Your task to perform on an android device: Clear the cart on ebay.com. Search for "macbook" on ebay.com, select the first entry, add it to the cart, then select checkout. Image 0: 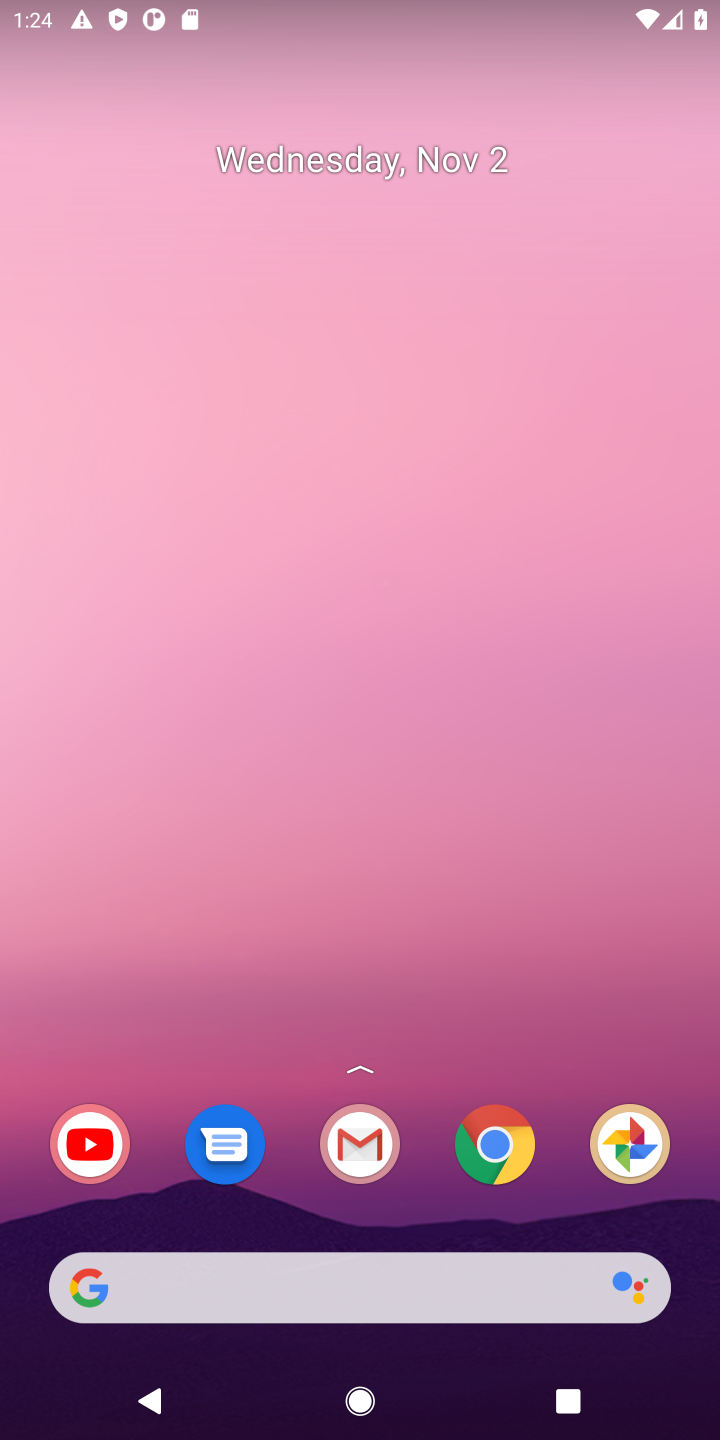
Step 0: press home button
Your task to perform on an android device: Clear the cart on ebay.com. Search for "macbook" on ebay.com, select the first entry, add it to the cart, then select checkout. Image 1: 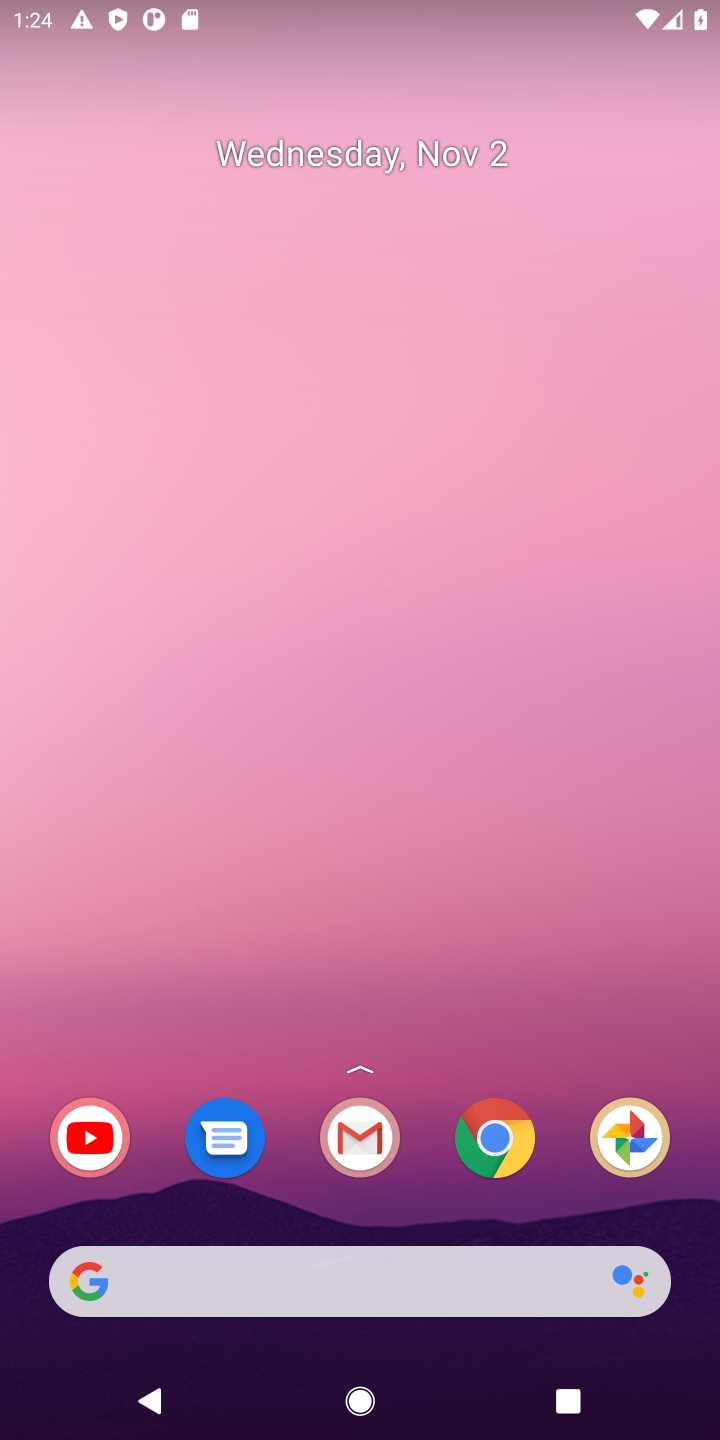
Step 1: press home button
Your task to perform on an android device: Clear the cart on ebay.com. Search for "macbook" on ebay.com, select the first entry, add it to the cart, then select checkout. Image 2: 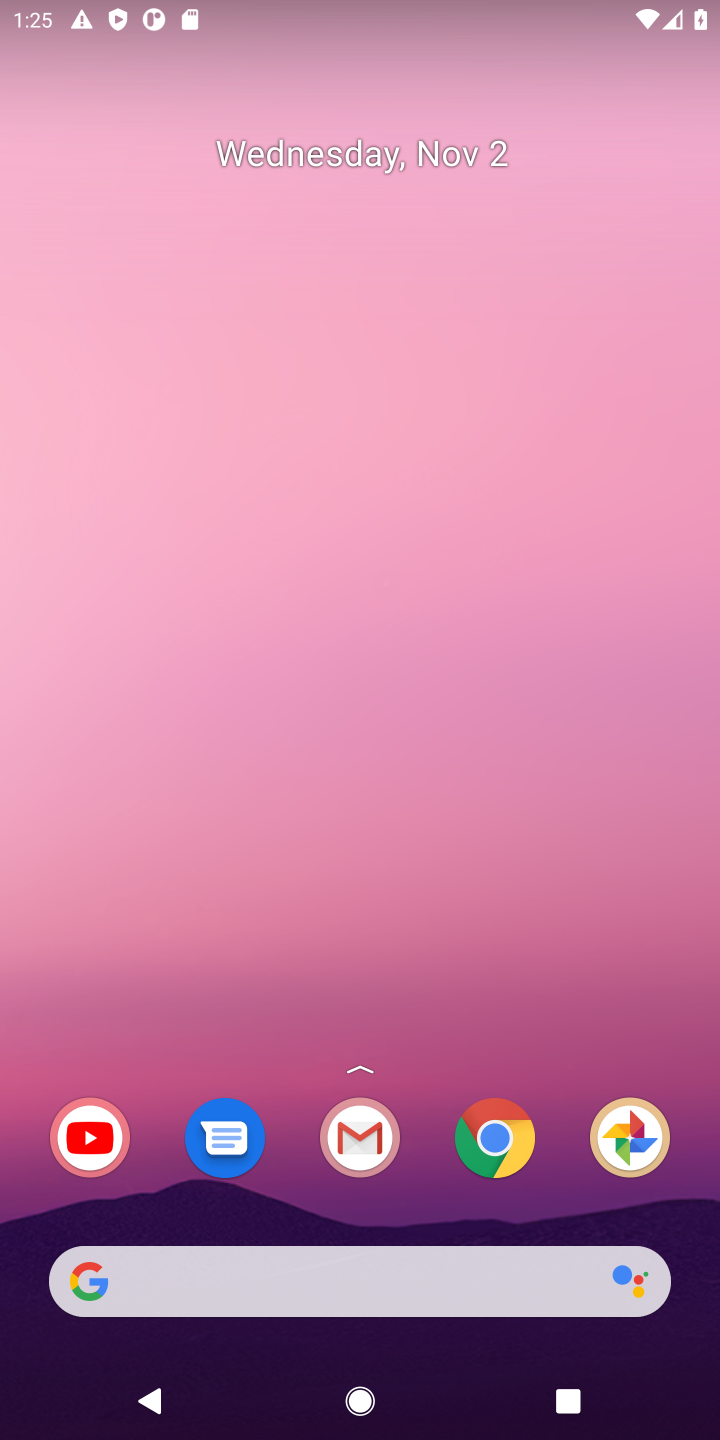
Step 2: click (136, 1272)
Your task to perform on an android device: Clear the cart on ebay.com. Search for "macbook" on ebay.com, select the first entry, add it to the cart, then select checkout. Image 3: 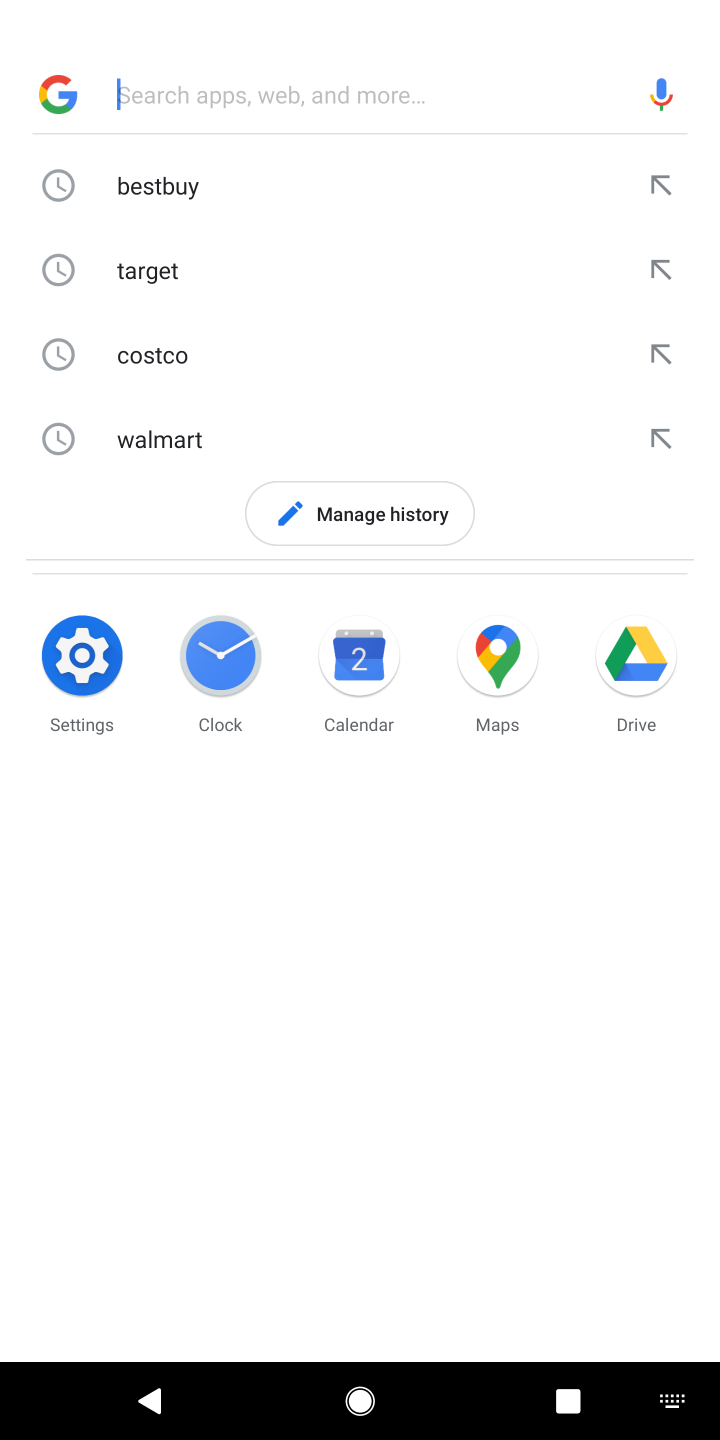
Step 3: press enter
Your task to perform on an android device: Clear the cart on ebay.com. Search for "macbook" on ebay.com, select the first entry, add it to the cart, then select checkout. Image 4: 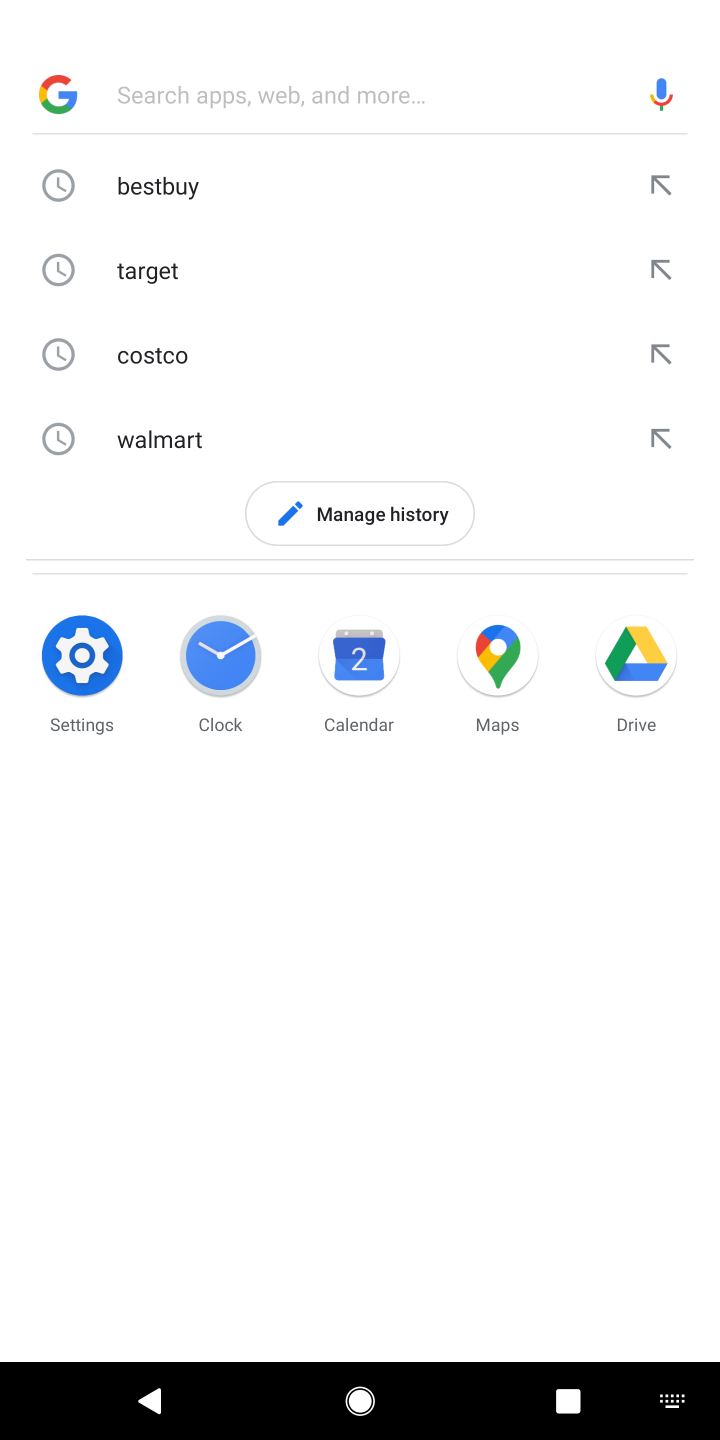
Step 4: type "ebay.com"
Your task to perform on an android device: Clear the cart on ebay.com. Search for "macbook" on ebay.com, select the first entry, add it to the cart, then select checkout. Image 5: 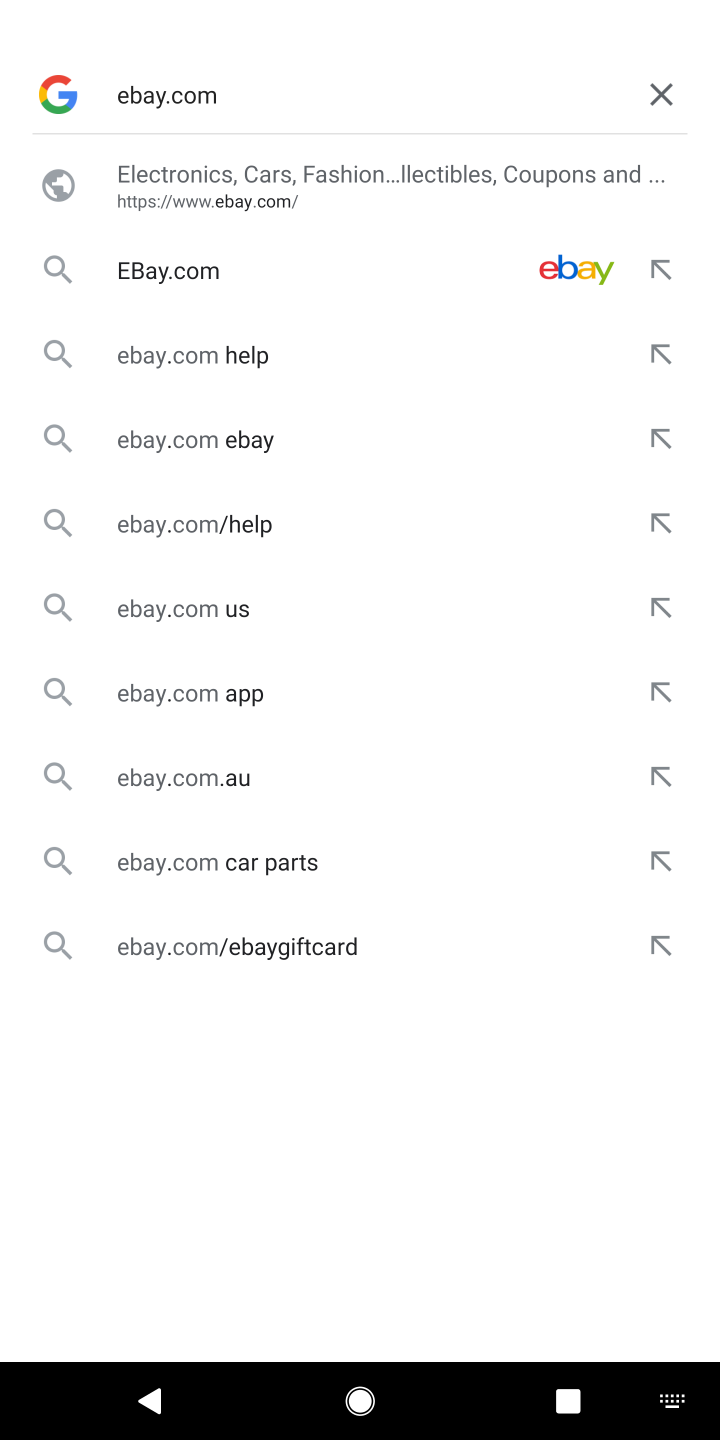
Step 5: press enter
Your task to perform on an android device: Clear the cart on ebay.com. Search for "macbook" on ebay.com, select the first entry, add it to the cart, then select checkout. Image 6: 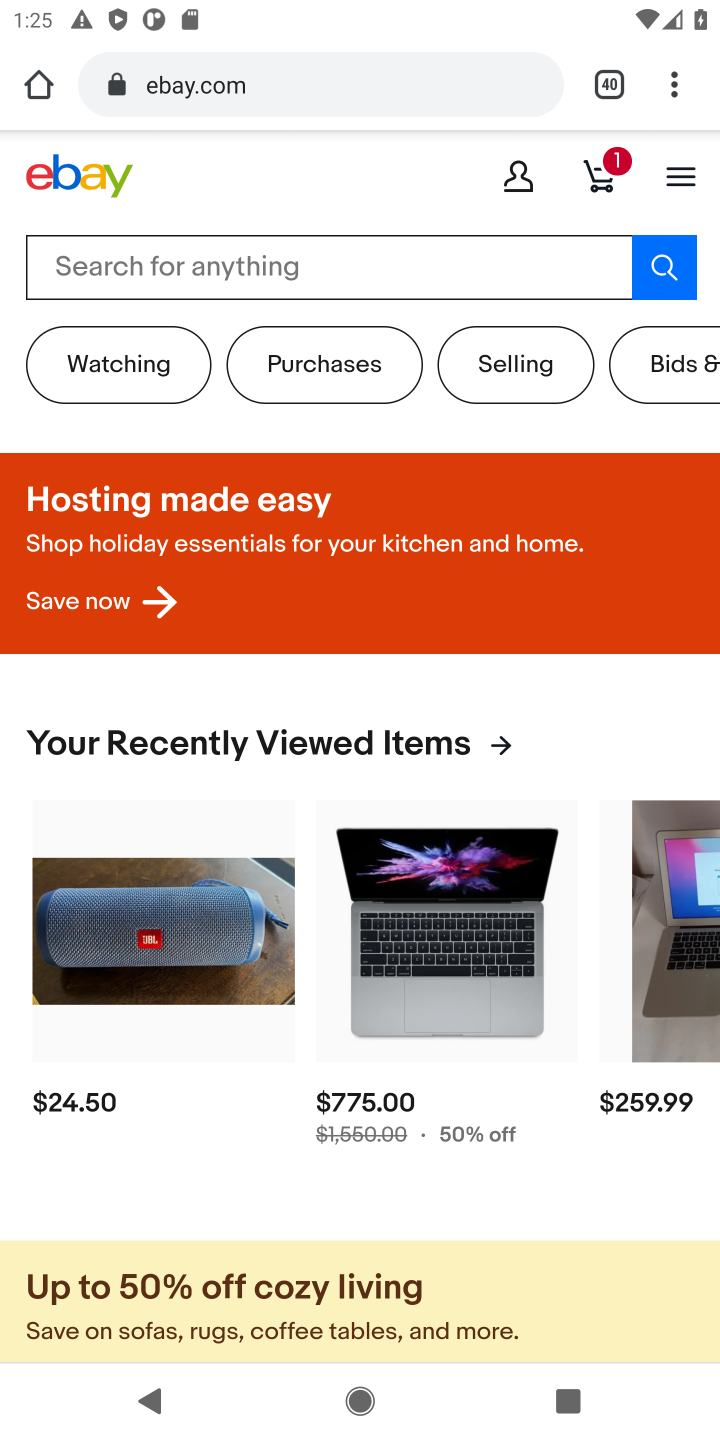
Step 6: click (607, 165)
Your task to perform on an android device: Clear the cart on ebay.com. Search for "macbook" on ebay.com, select the first entry, add it to the cart, then select checkout. Image 7: 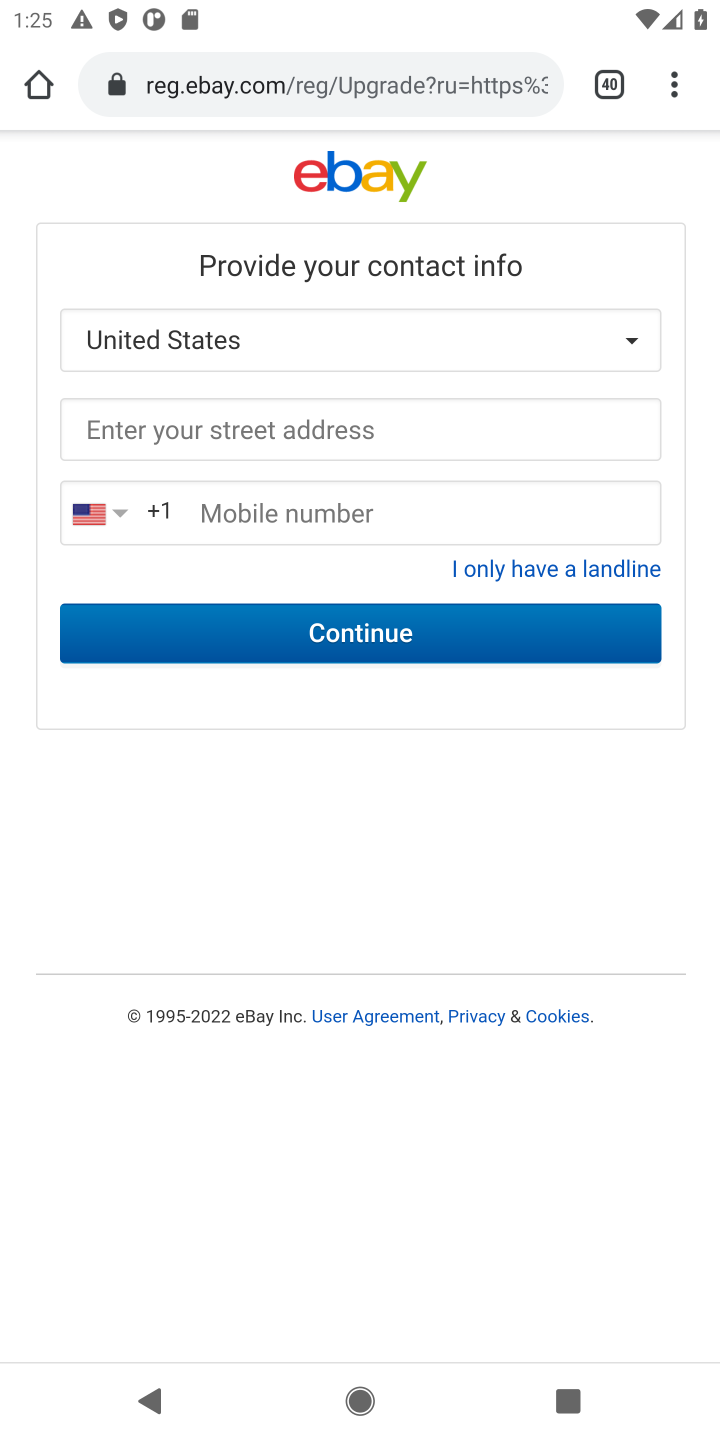
Step 7: press back button
Your task to perform on an android device: Clear the cart on ebay.com. Search for "macbook" on ebay.com, select the first entry, add it to the cart, then select checkout. Image 8: 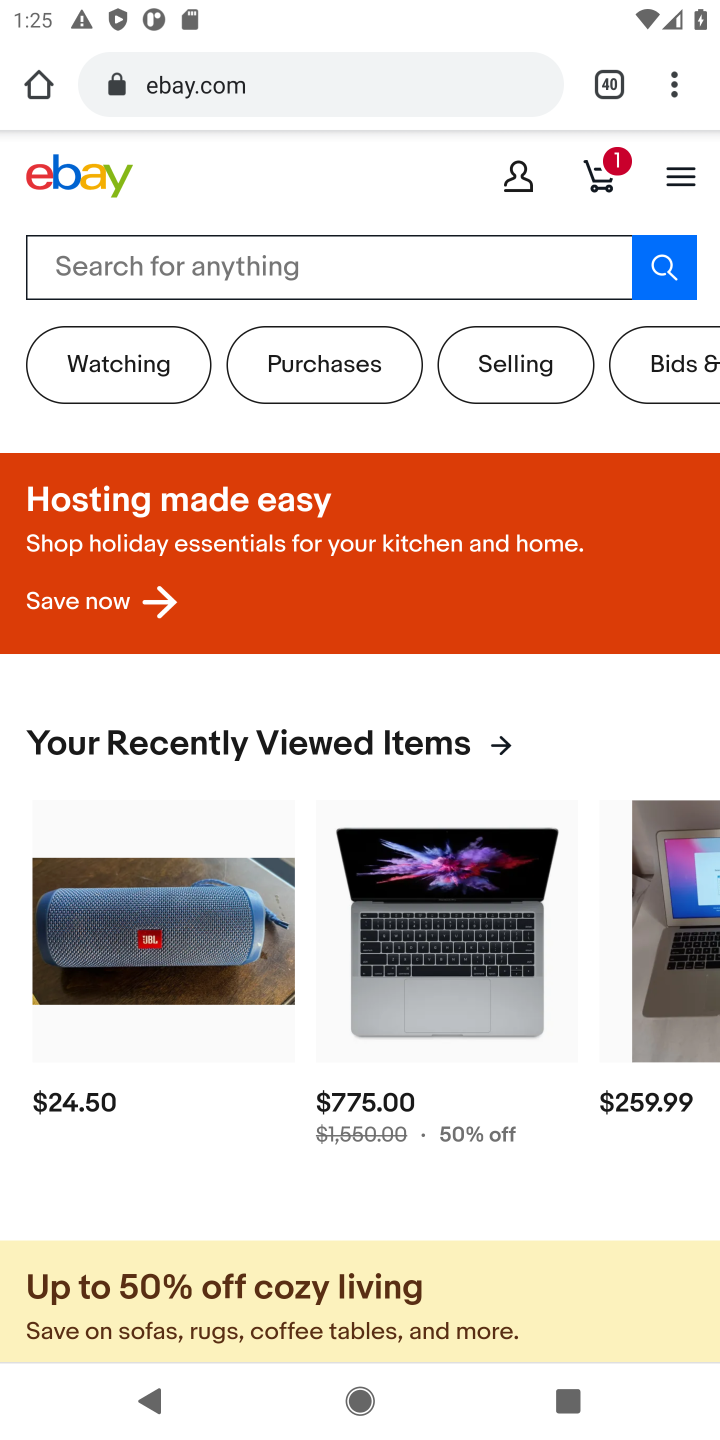
Step 8: click (148, 269)
Your task to perform on an android device: Clear the cart on ebay.com. Search for "macbook" on ebay.com, select the first entry, add it to the cart, then select checkout. Image 9: 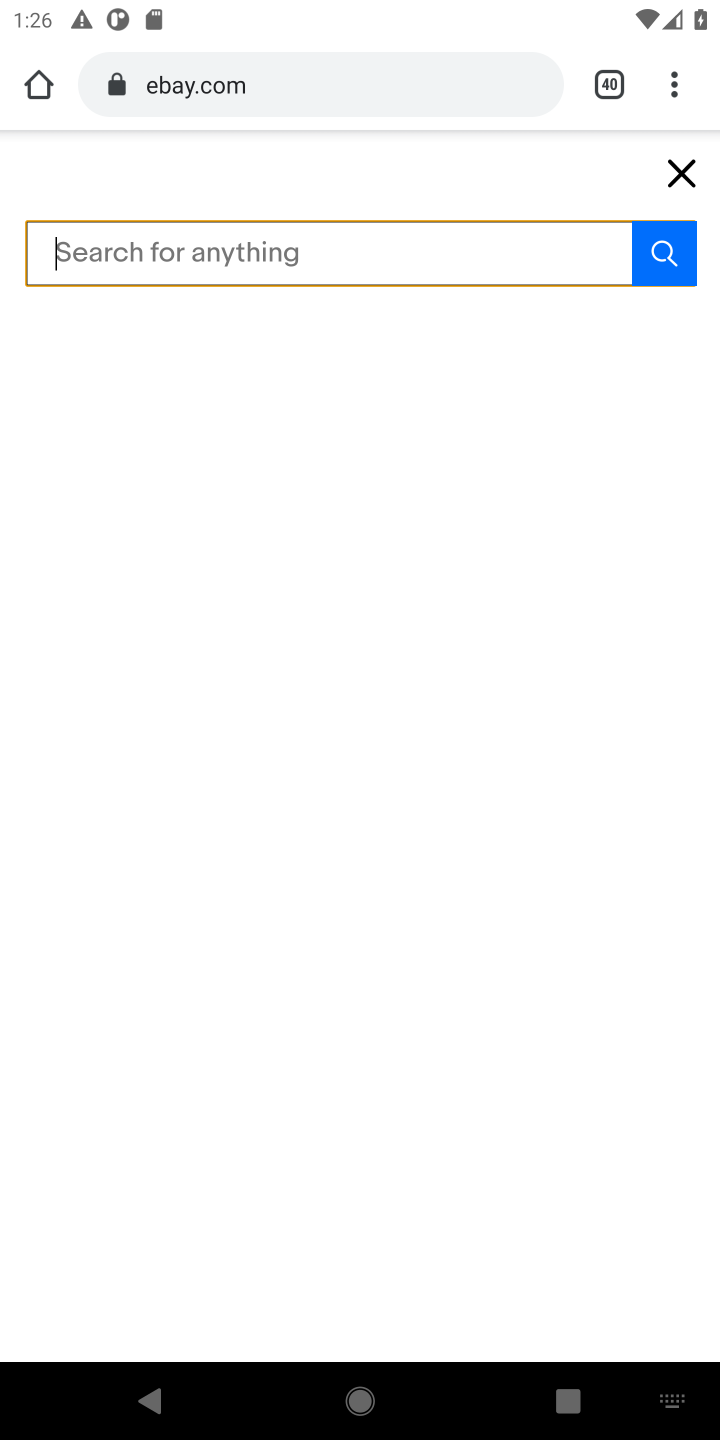
Step 9: press enter
Your task to perform on an android device: Clear the cart on ebay.com. Search for "macbook" on ebay.com, select the first entry, add it to the cart, then select checkout. Image 10: 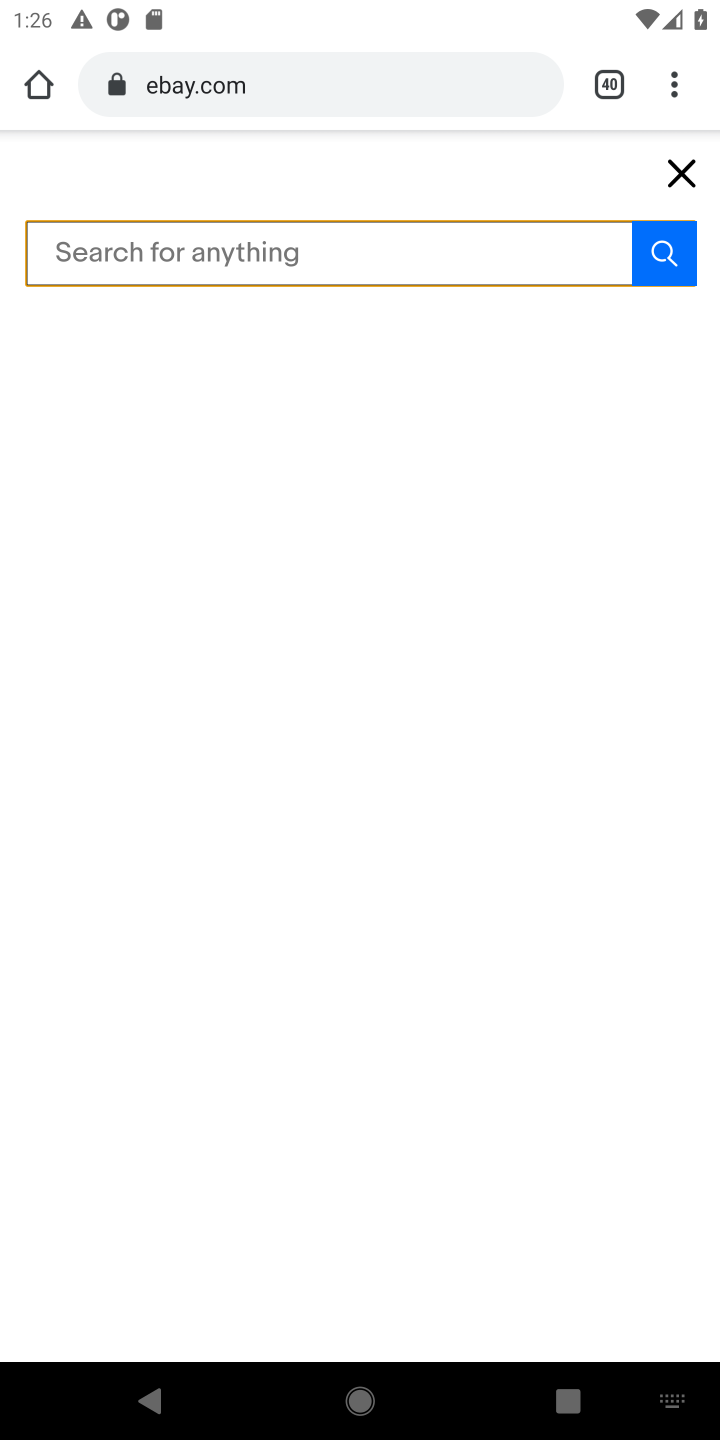
Step 10: type "macbook"
Your task to perform on an android device: Clear the cart on ebay.com. Search for "macbook" on ebay.com, select the first entry, add it to the cart, then select checkout. Image 11: 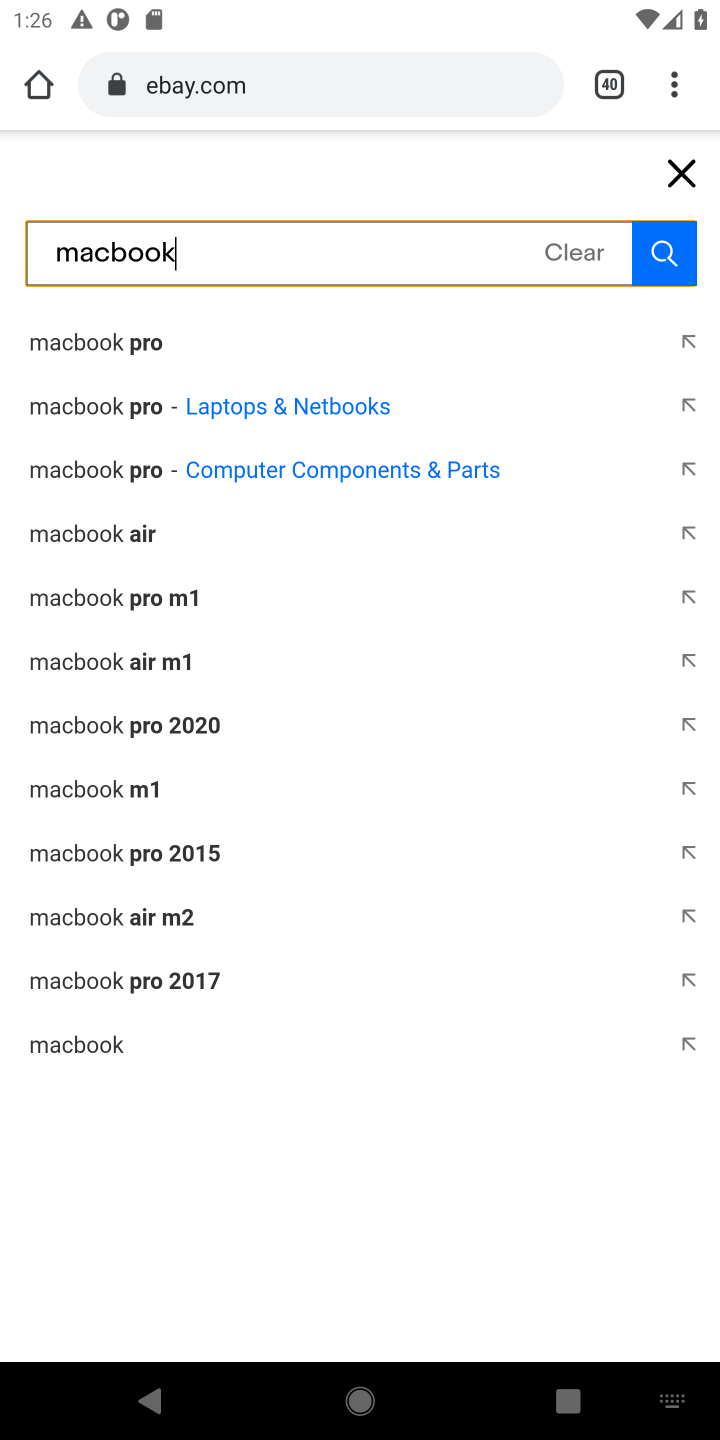
Step 11: click (682, 240)
Your task to perform on an android device: Clear the cart on ebay.com. Search for "macbook" on ebay.com, select the first entry, add it to the cart, then select checkout. Image 12: 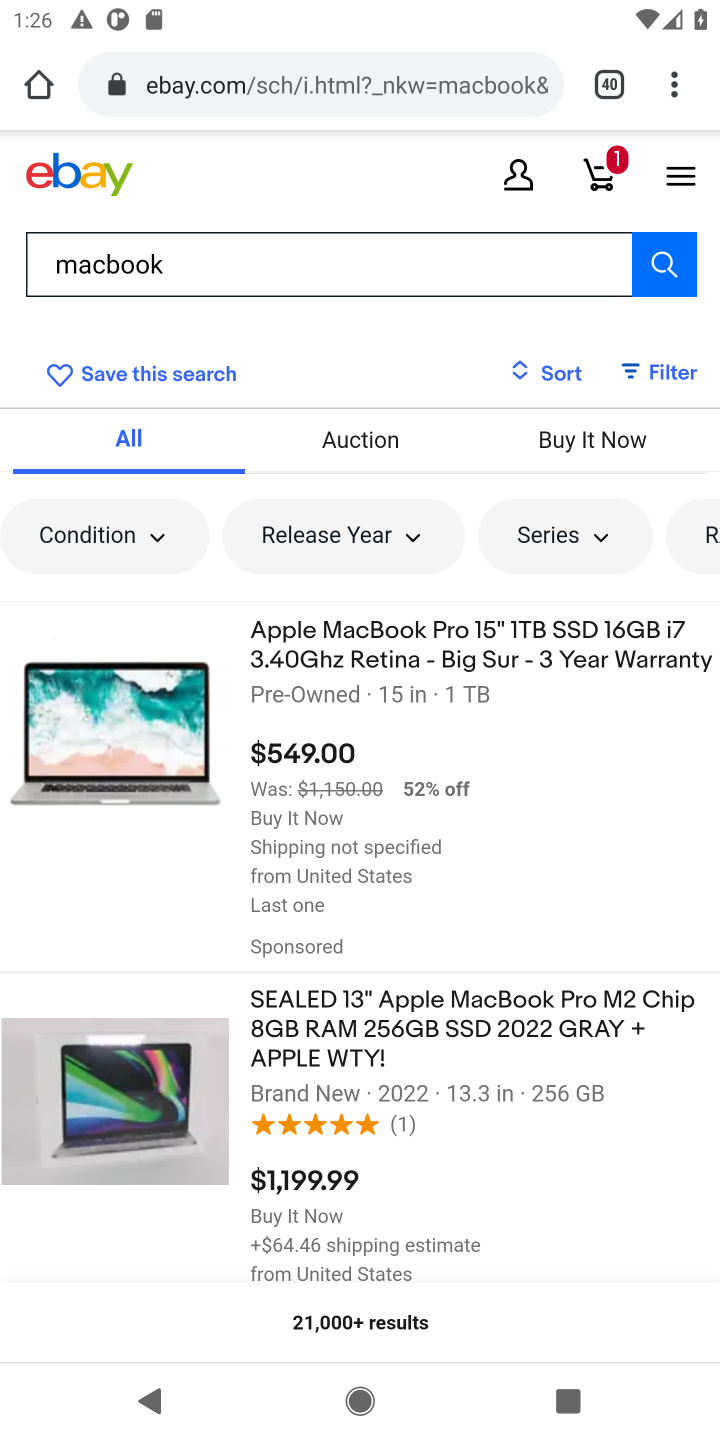
Step 12: click (381, 705)
Your task to perform on an android device: Clear the cart on ebay.com. Search for "macbook" on ebay.com, select the first entry, add it to the cart, then select checkout. Image 13: 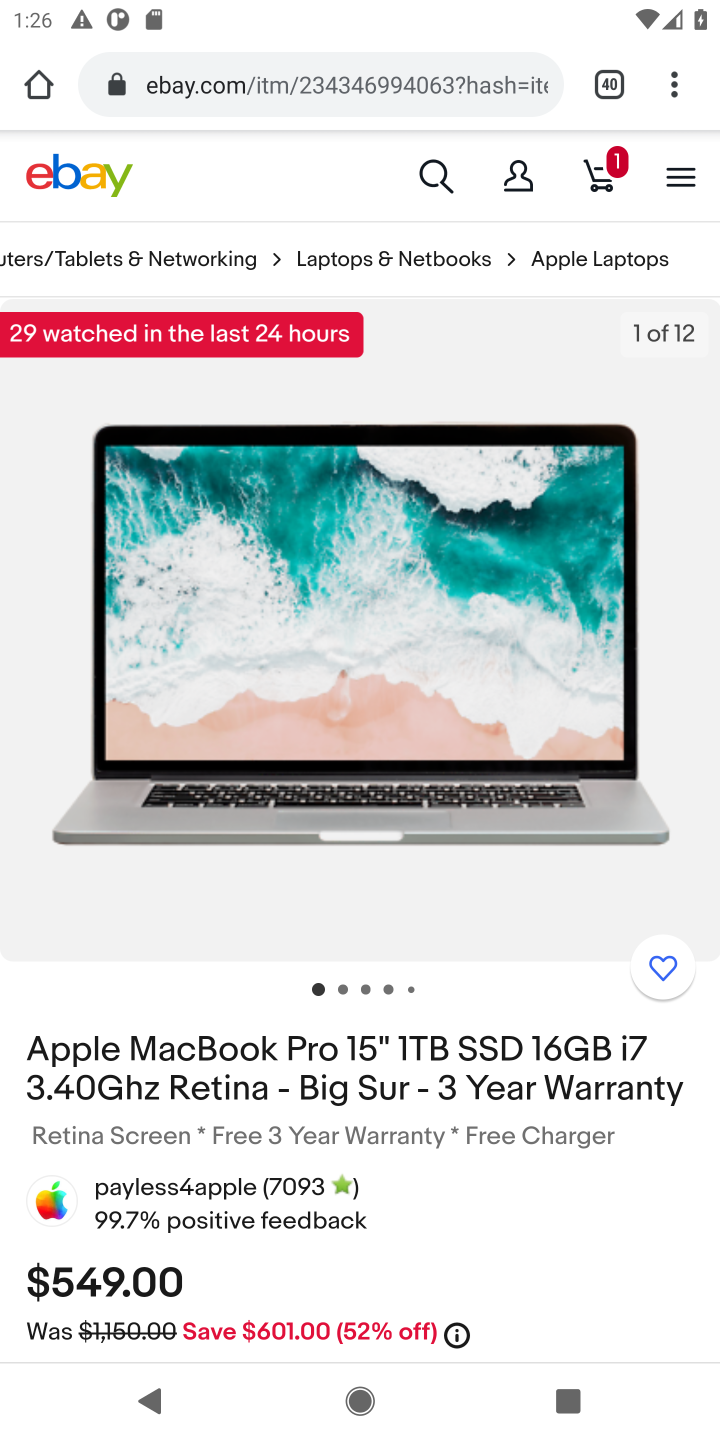
Step 13: drag from (429, 1039) to (460, 743)
Your task to perform on an android device: Clear the cart on ebay.com. Search for "macbook" on ebay.com, select the first entry, add it to the cart, then select checkout. Image 14: 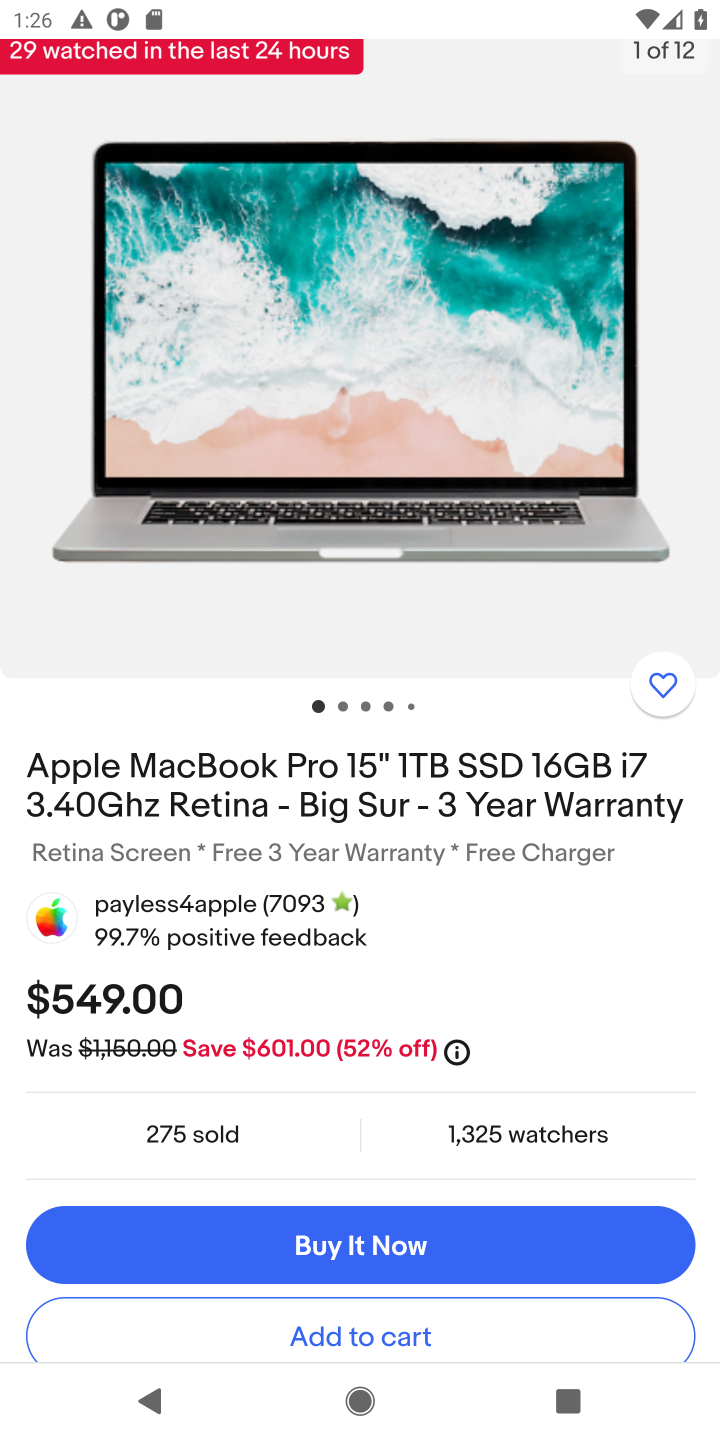
Step 14: drag from (435, 1042) to (462, 733)
Your task to perform on an android device: Clear the cart on ebay.com. Search for "macbook" on ebay.com, select the first entry, add it to the cart, then select checkout. Image 15: 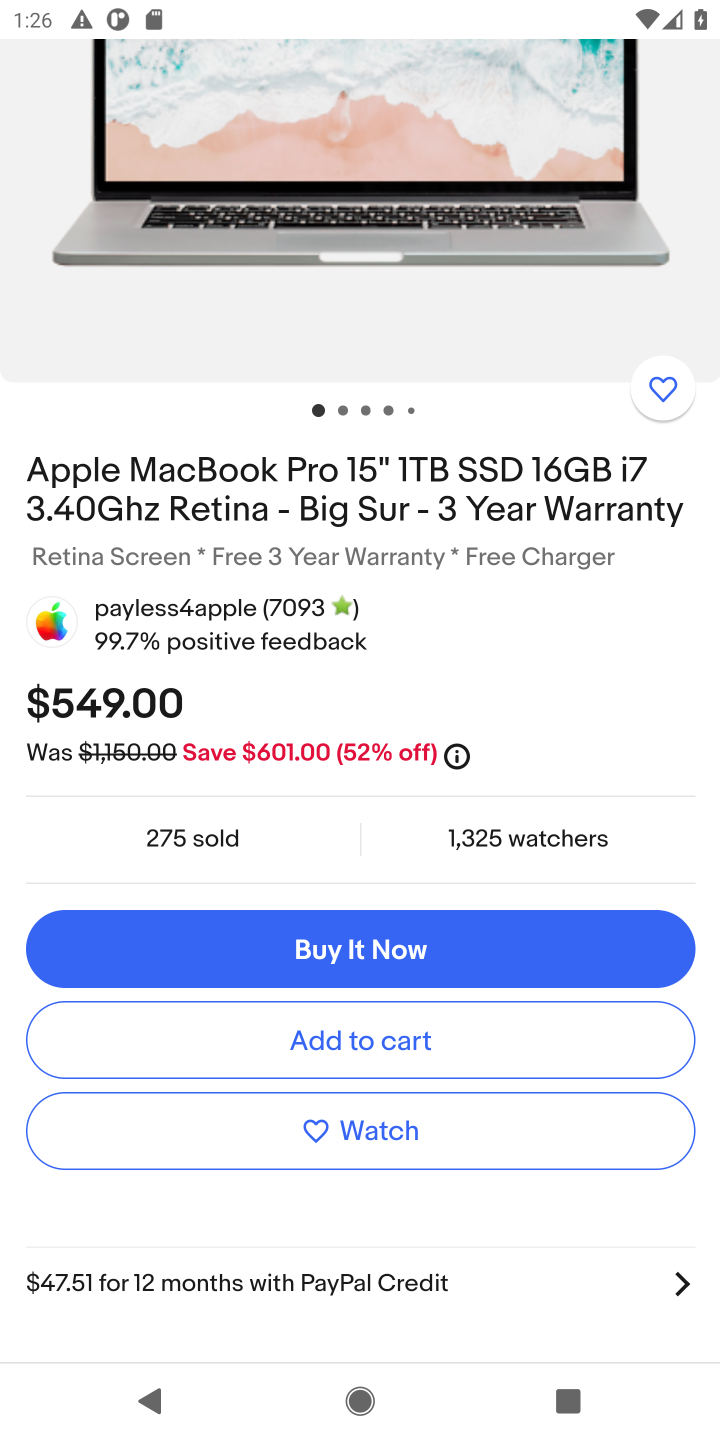
Step 15: click (363, 1033)
Your task to perform on an android device: Clear the cart on ebay.com. Search for "macbook" on ebay.com, select the first entry, add it to the cart, then select checkout. Image 16: 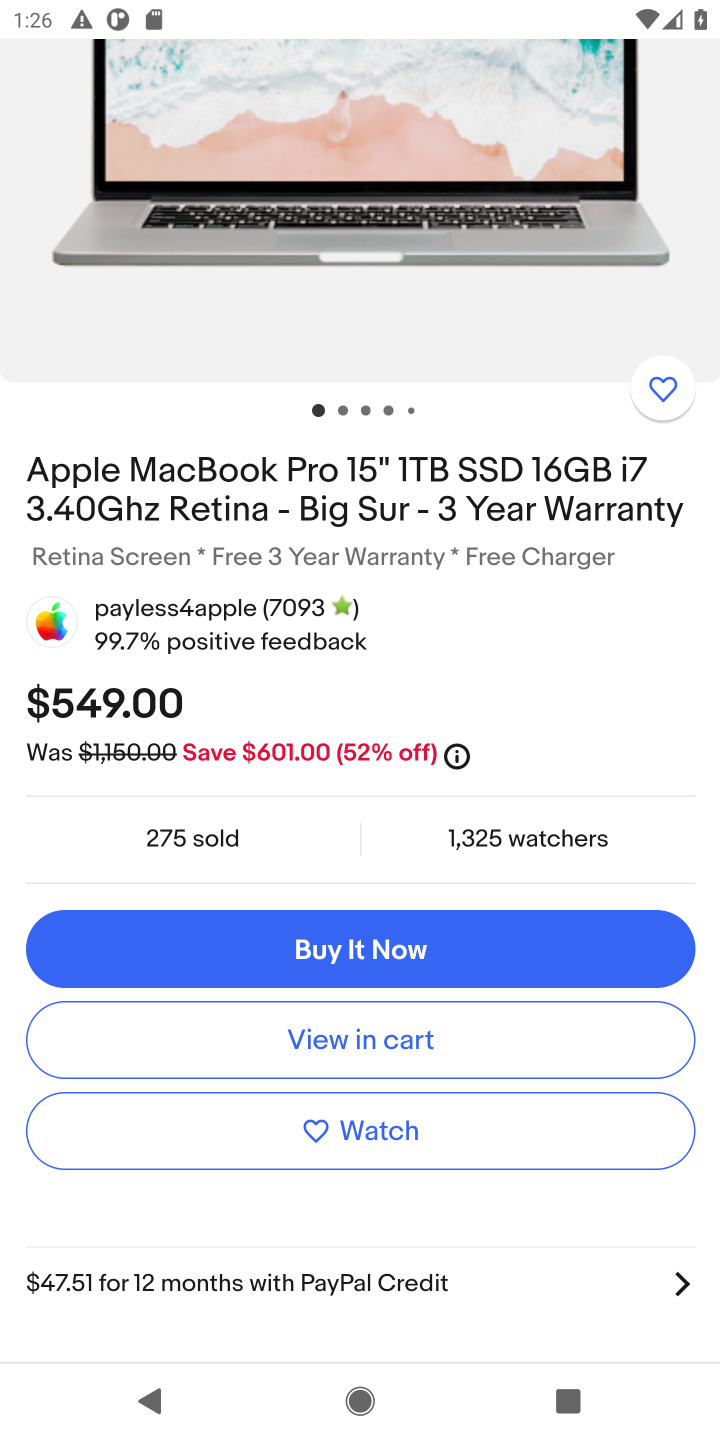
Step 16: click (363, 1033)
Your task to perform on an android device: Clear the cart on ebay.com. Search for "macbook" on ebay.com, select the first entry, add it to the cart, then select checkout. Image 17: 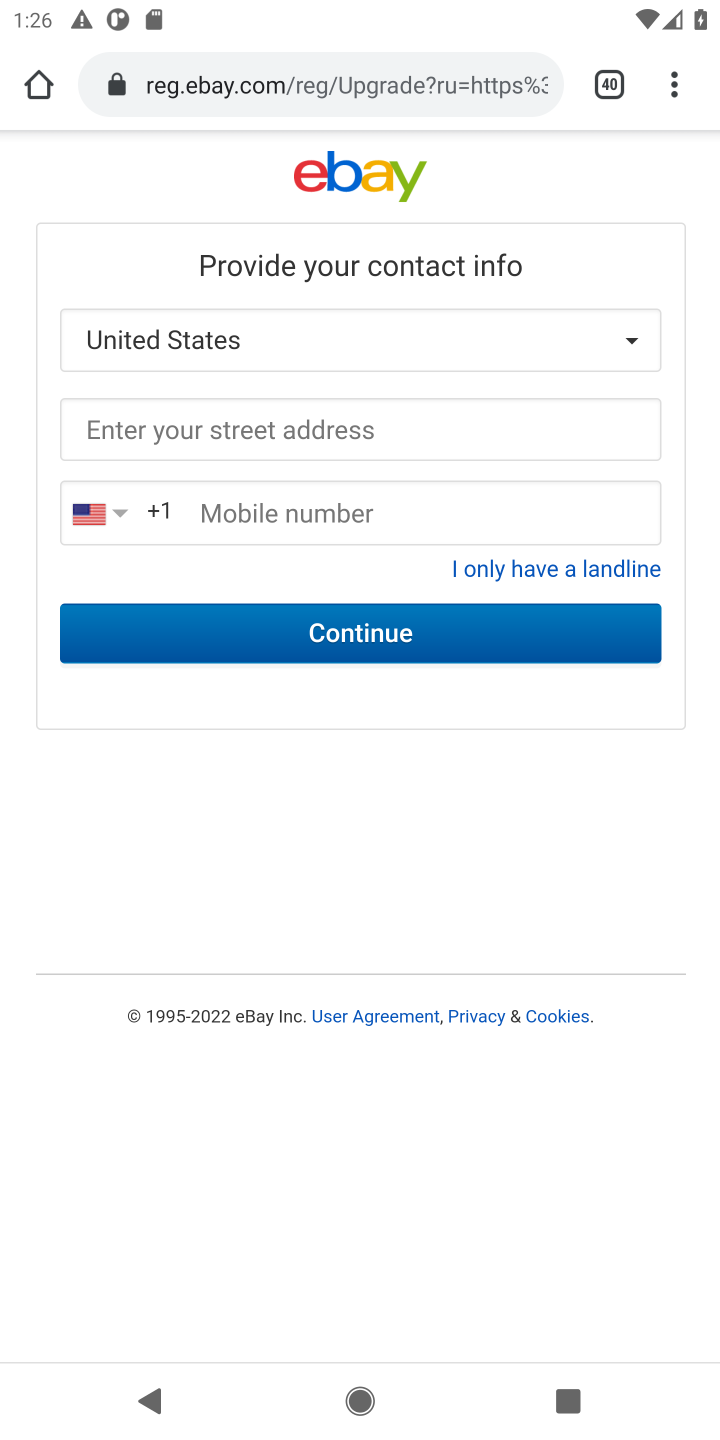
Step 17: task complete